Your task to perform on an android device: Go to Google Image 0: 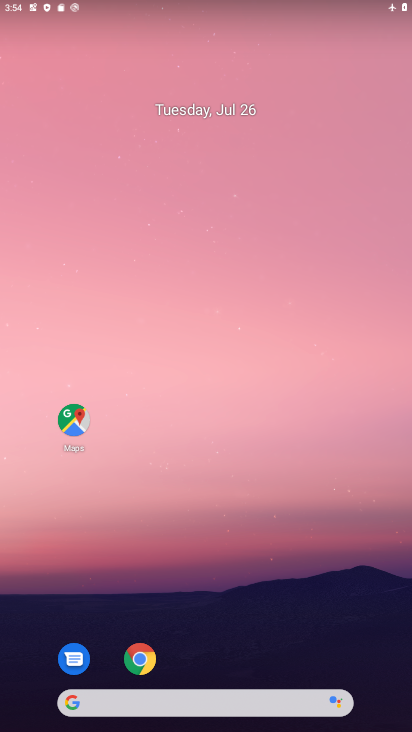
Step 0: drag from (251, 448) to (330, 1)
Your task to perform on an android device: Go to Google Image 1: 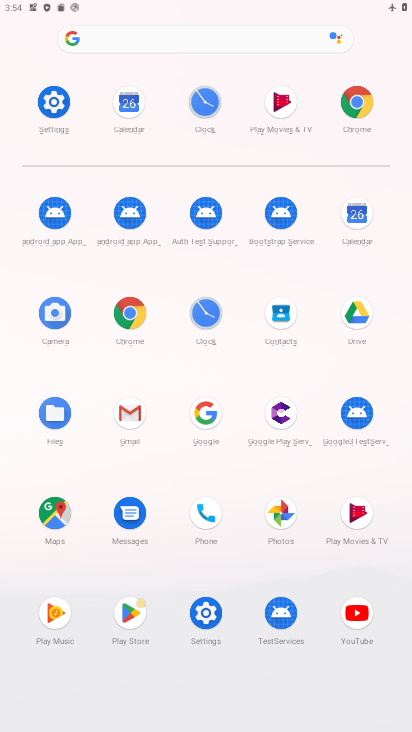
Step 1: click (205, 422)
Your task to perform on an android device: Go to Google Image 2: 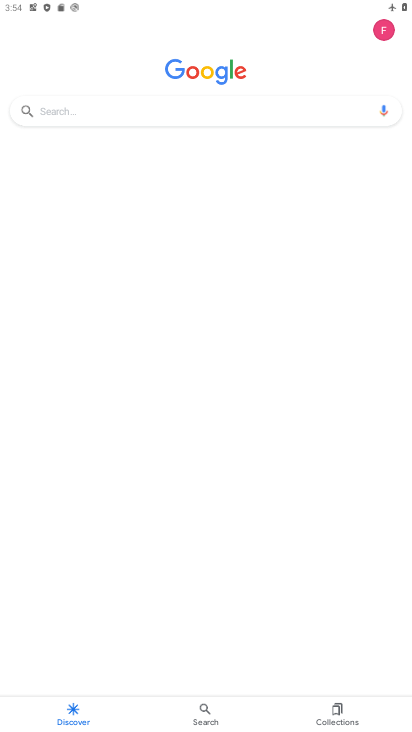
Step 2: task complete